Your task to perform on an android device: clear all cookies in the chrome app Image 0: 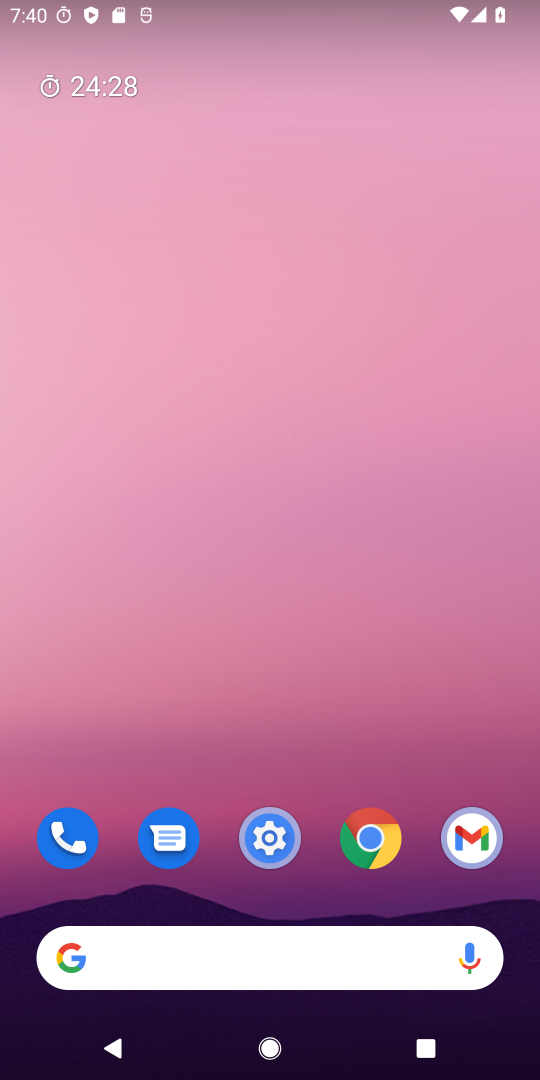
Step 0: drag from (336, 881) to (283, 21)
Your task to perform on an android device: clear all cookies in the chrome app Image 1: 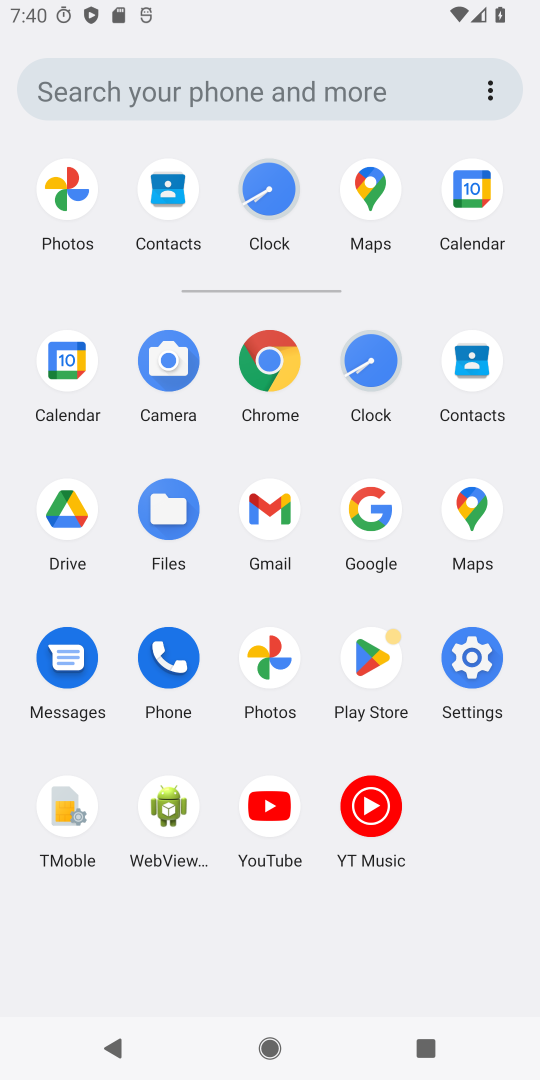
Step 1: click (263, 352)
Your task to perform on an android device: clear all cookies in the chrome app Image 2: 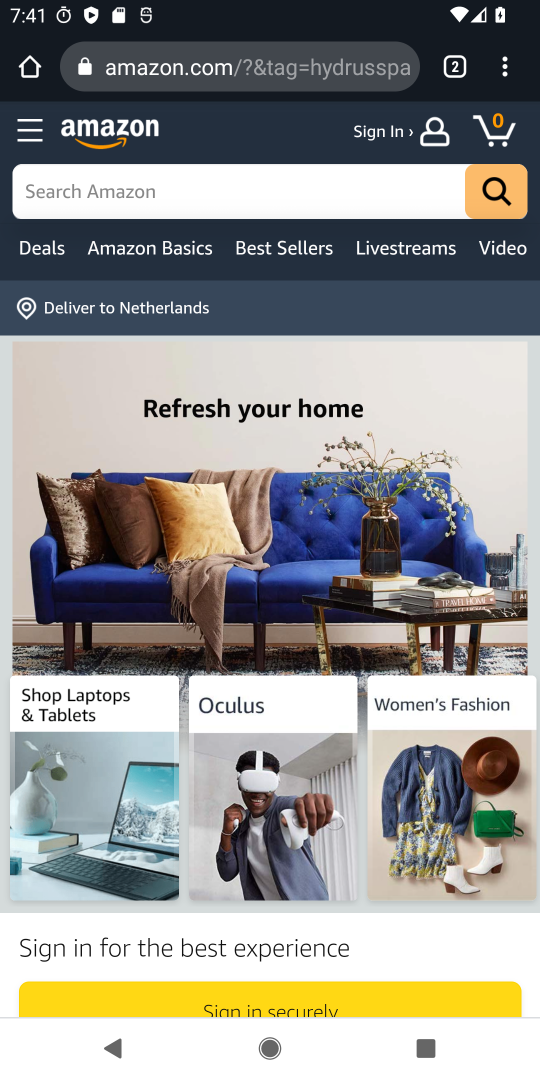
Step 2: drag from (502, 58) to (348, 824)
Your task to perform on an android device: clear all cookies in the chrome app Image 3: 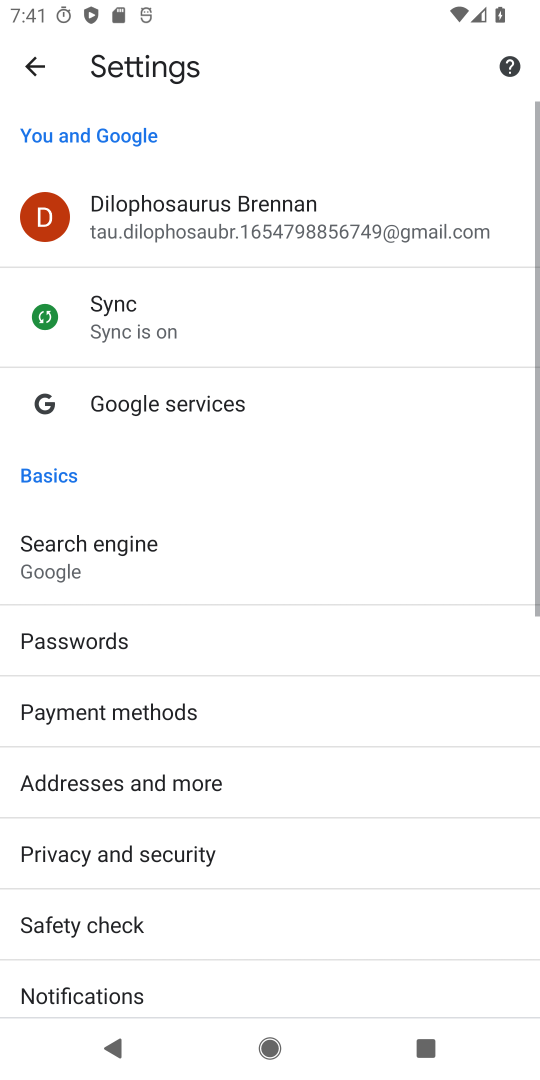
Step 3: drag from (326, 869) to (335, 189)
Your task to perform on an android device: clear all cookies in the chrome app Image 4: 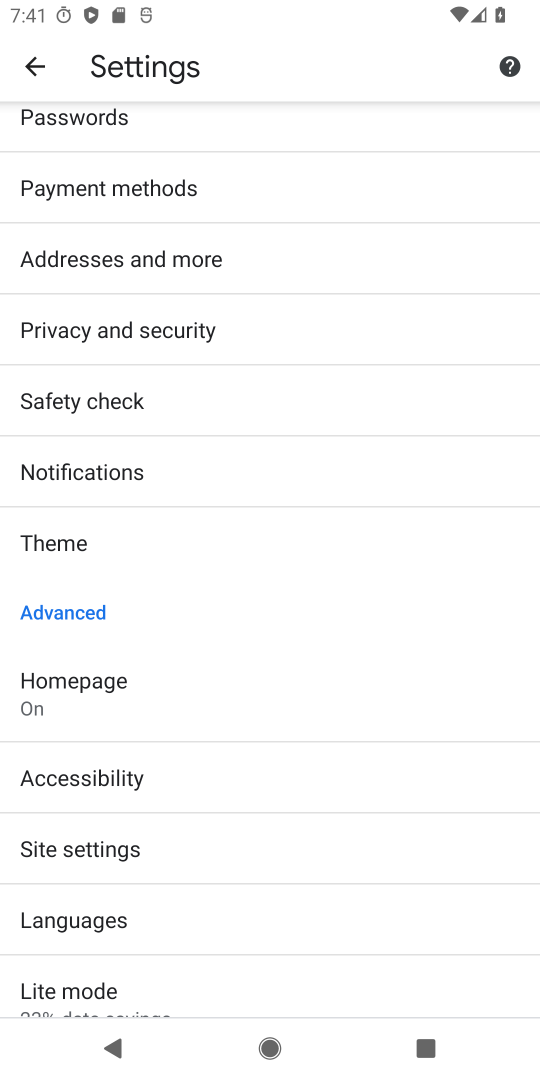
Step 4: click (144, 845)
Your task to perform on an android device: clear all cookies in the chrome app Image 5: 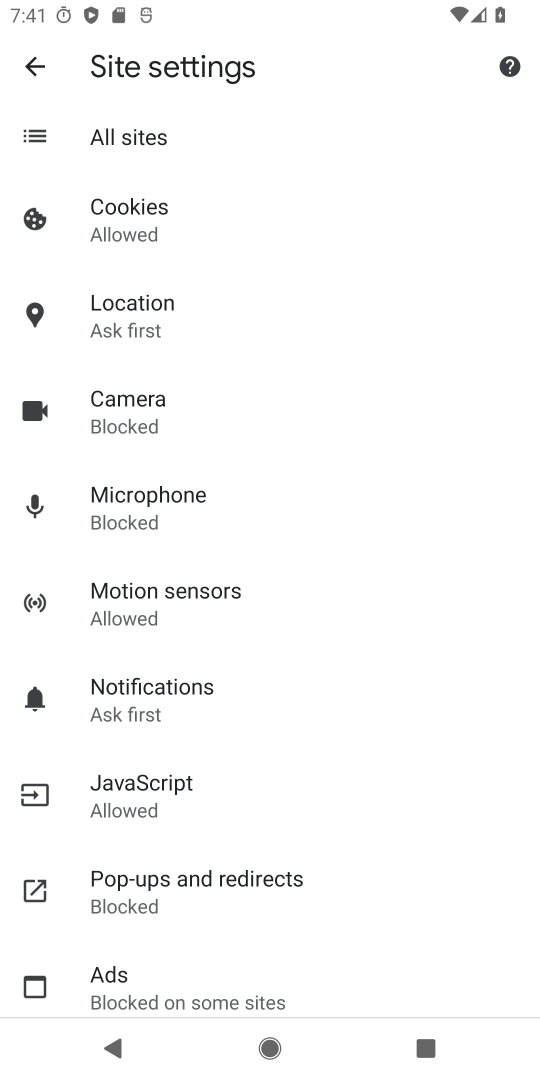
Step 5: drag from (198, 784) to (250, 352)
Your task to perform on an android device: clear all cookies in the chrome app Image 6: 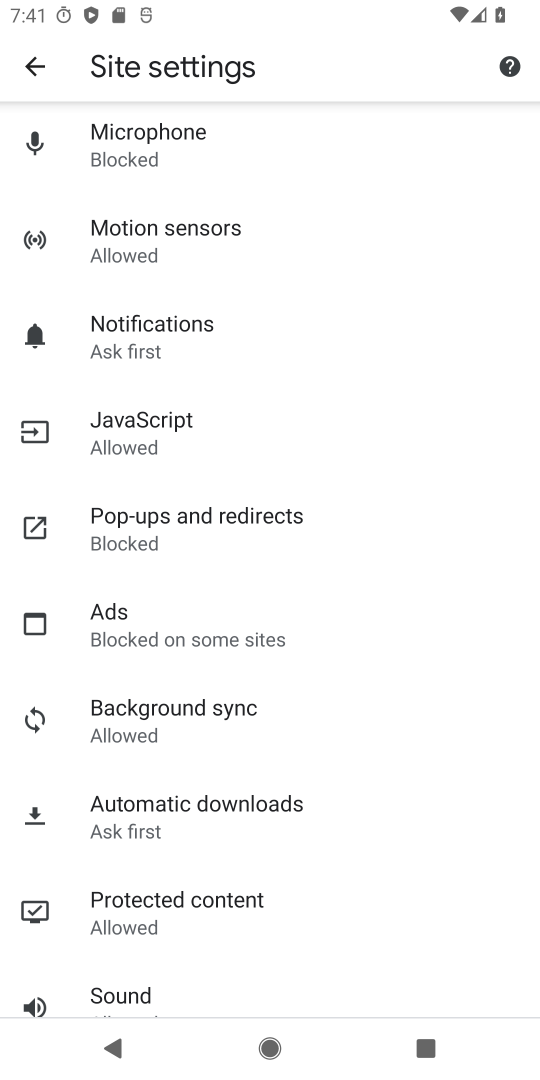
Step 6: drag from (257, 901) to (282, 384)
Your task to perform on an android device: clear all cookies in the chrome app Image 7: 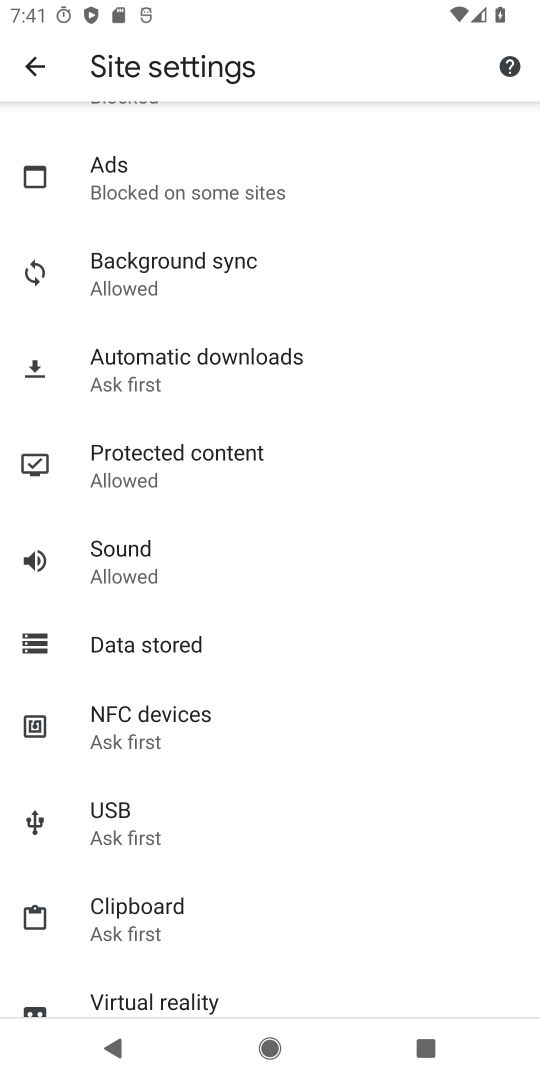
Step 7: drag from (278, 312) to (195, 893)
Your task to perform on an android device: clear all cookies in the chrome app Image 8: 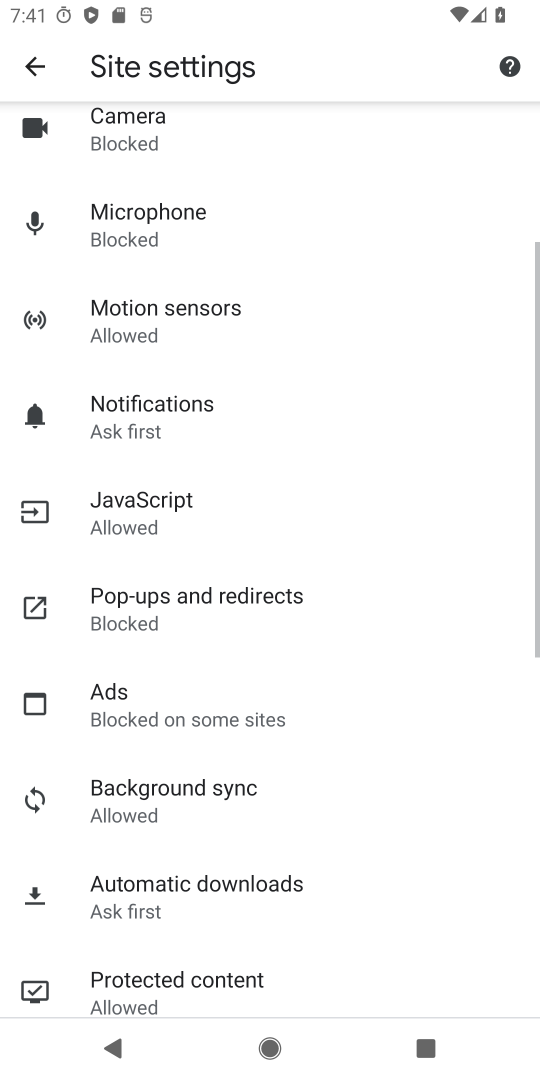
Step 8: drag from (233, 343) to (153, 787)
Your task to perform on an android device: clear all cookies in the chrome app Image 9: 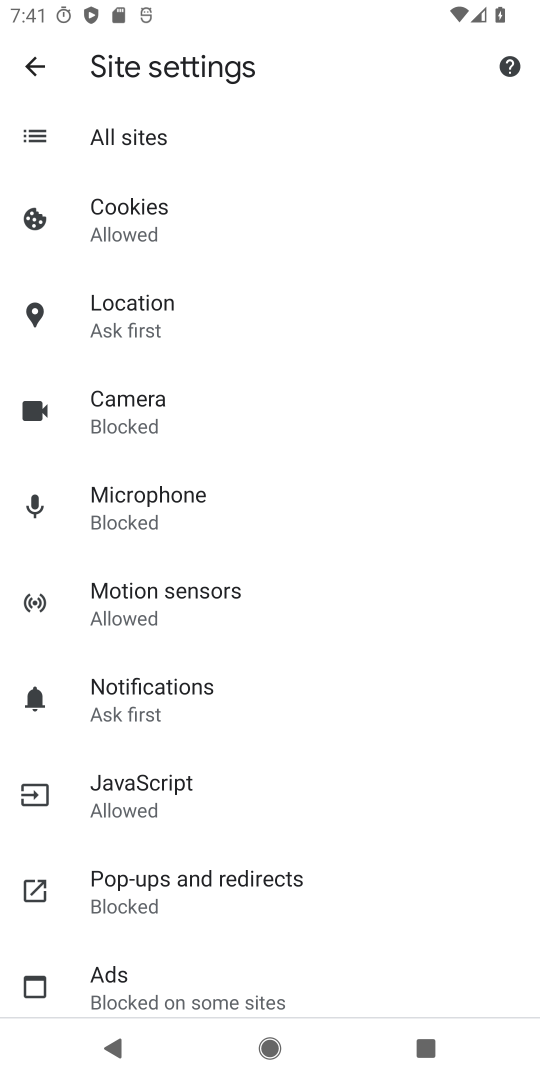
Step 9: click (146, 211)
Your task to perform on an android device: clear all cookies in the chrome app Image 10: 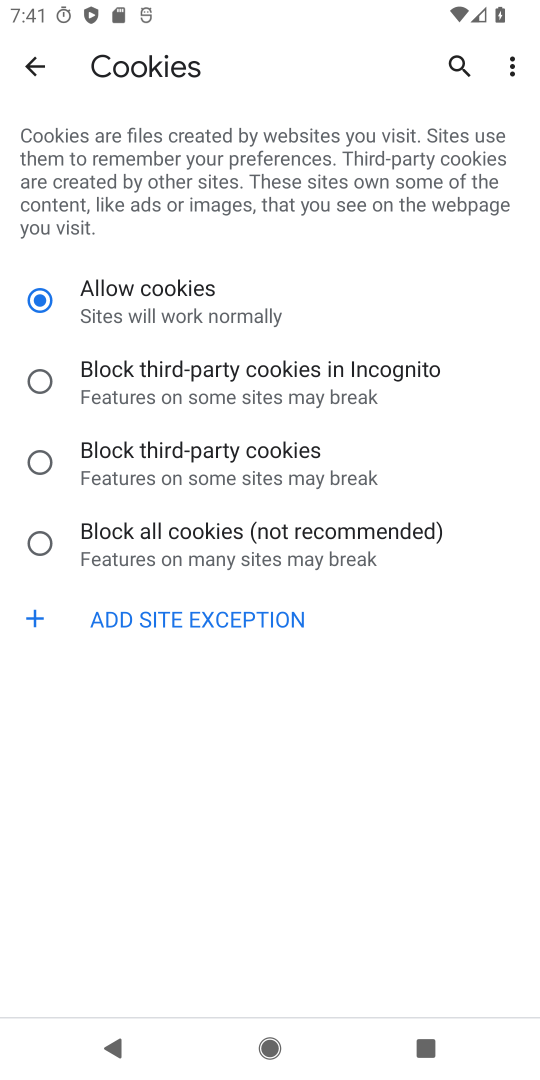
Step 10: click (129, 314)
Your task to perform on an android device: clear all cookies in the chrome app Image 11: 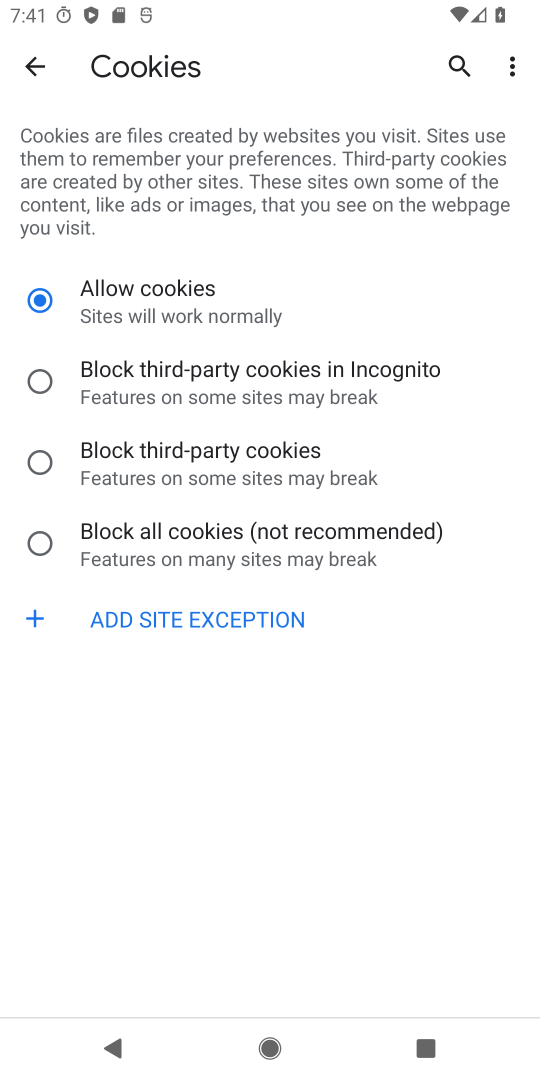
Step 11: task complete